Your task to perform on an android device: turn notification dots off Image 0: 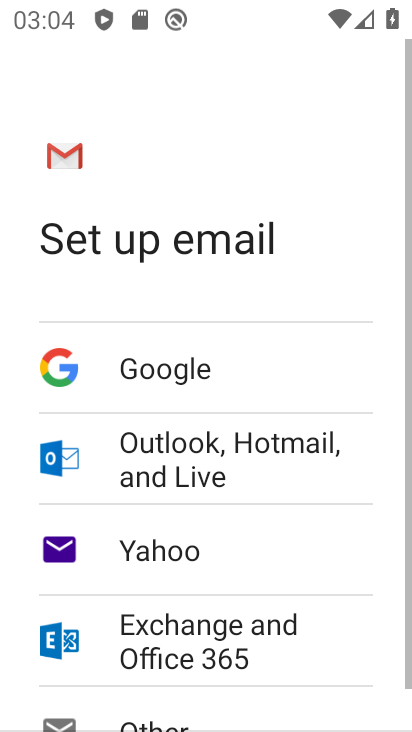
Step 0: press back button
Your task to perform on an android device: turn notification dots off Image 1: 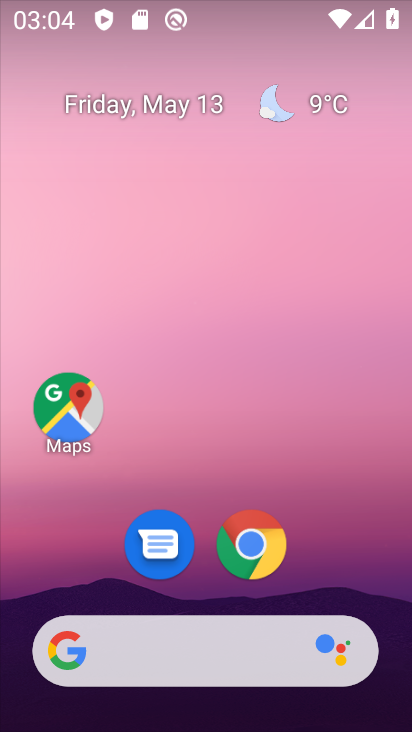
Step 1: drag from (309, 497) to (242, 28)
Your task to perform on an android device: turn notification dots off Image 2: 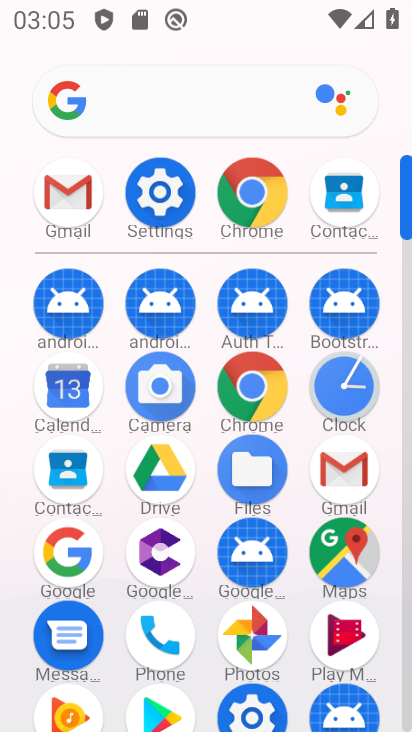
Step 2: click (157, 187)
Your task to perform on an android device: turn notification dots off Image 3: 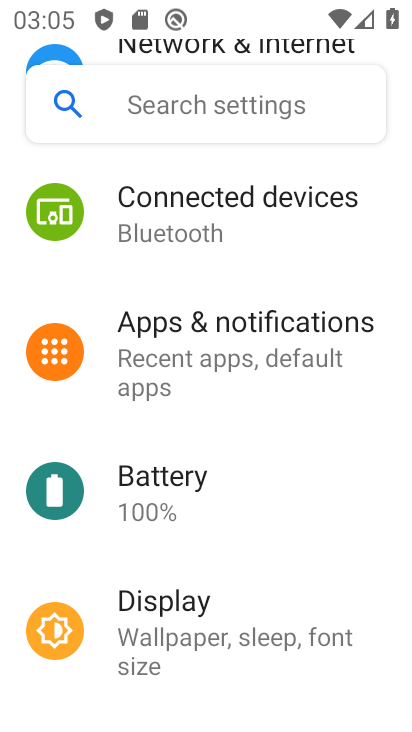
Step 3: drag from (268, 497) to (260, 153)
Your task to perform on an android device: turn notification dots off Image 4: 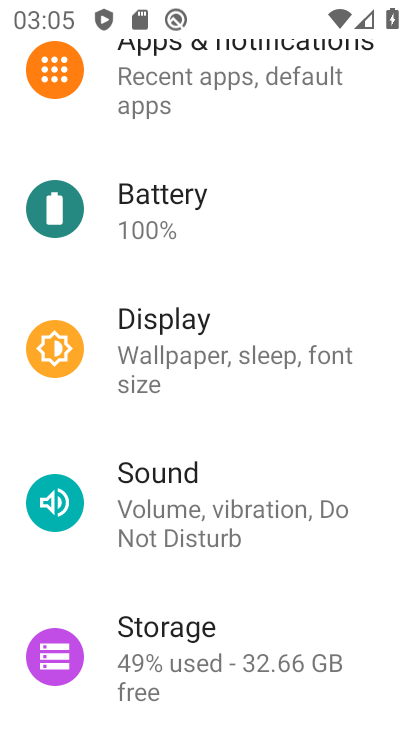
Step 4: drag from (231, 481) to (236, 192)
Your task to perform on an android device: turn notification dots off Image 5: 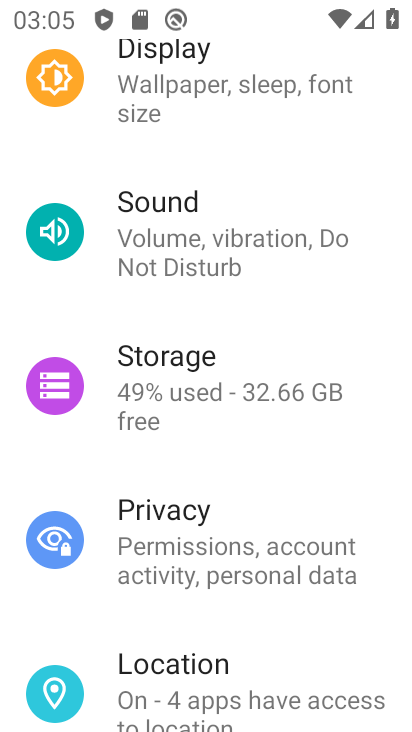
Step 5: drag from (177, 612) to (228, 122)
Your task to perform on an android device: turn notification dots off Image 6: 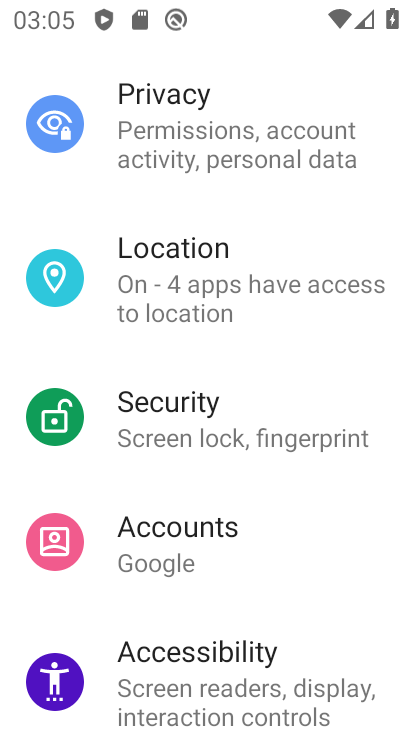
Step 6: drag from (233, 143) to (239, 625)
Your task to perform on an android device: turn notification dots off Image 7: 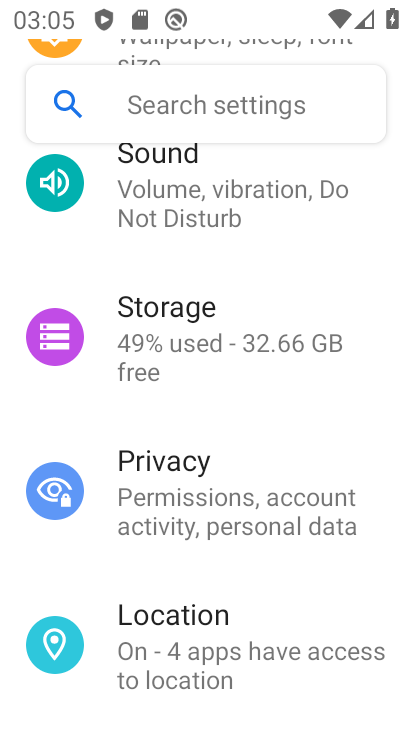
Step 7: drag from (277, 234) to (267, 613)
Your task to perform on an android device: turn notification dots off Image 8: 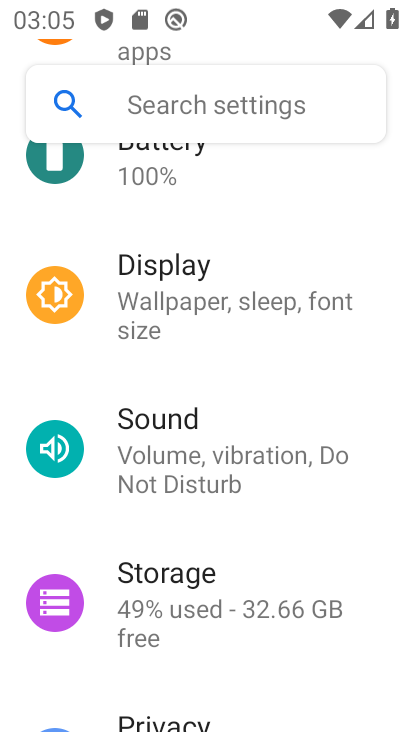
Step 8: drag from (259, 281) to (257, 591)
Your task to perform on an android device: turn notification dots off Image 9: 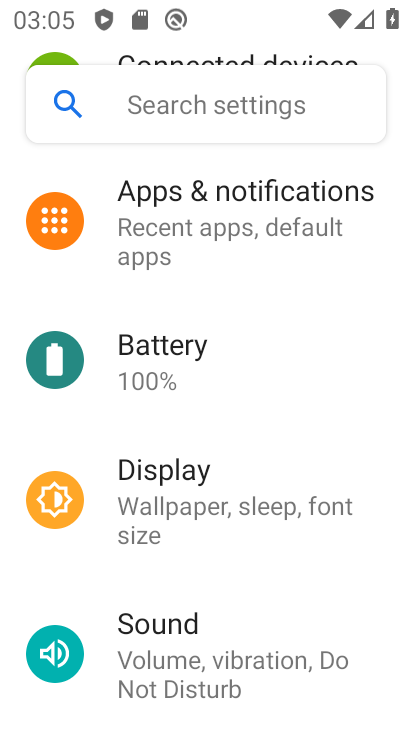
Step 9: click (268, 223)
Your task to perform on an android device: turn notification dots off Image 10: 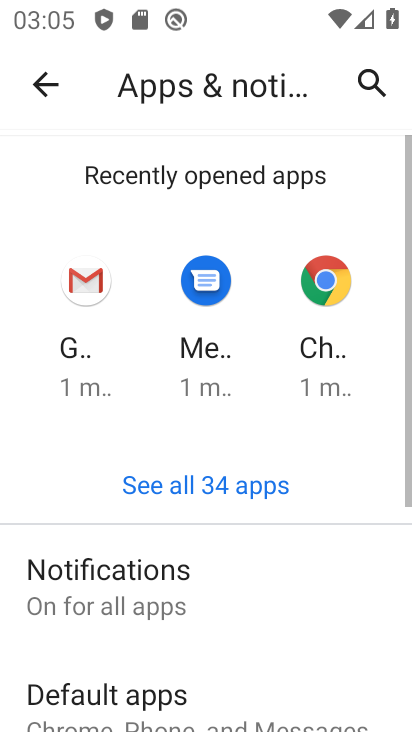
Step 10: drag from (254, 566) to (259, 171)
Your task to perform on an android device: turn notification dots off Image 11: 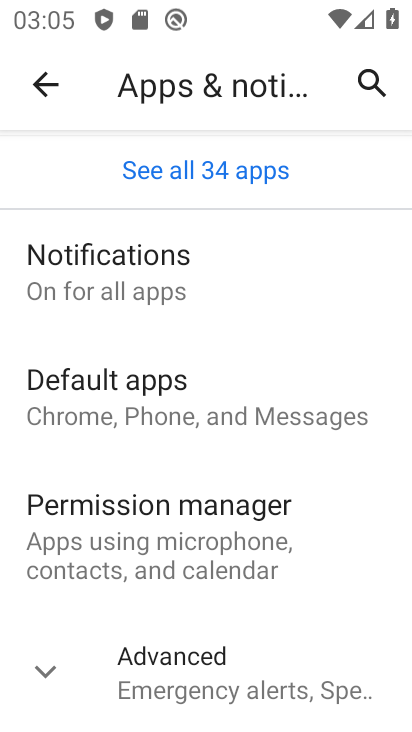
Step 11: drag from (240, 551) to (245, 194)
Your task to perform on an android device: turn notification dots off Image 12: 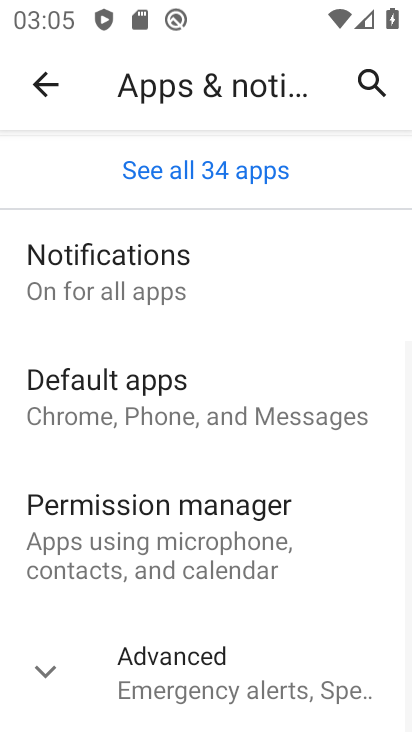
Step 12: drag from (254, 568) to (248, 193)
Your task to perform on an android device: turn notification dots off Image 13: 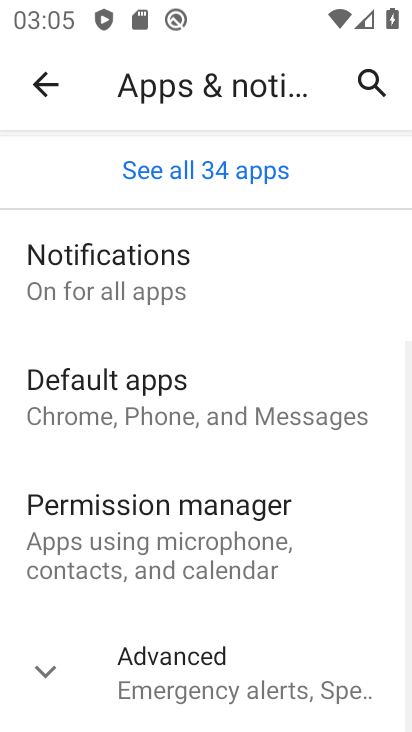
Step 13: click (205, 657)
Your task to perform on an android device: turn notification dots off Image 14: 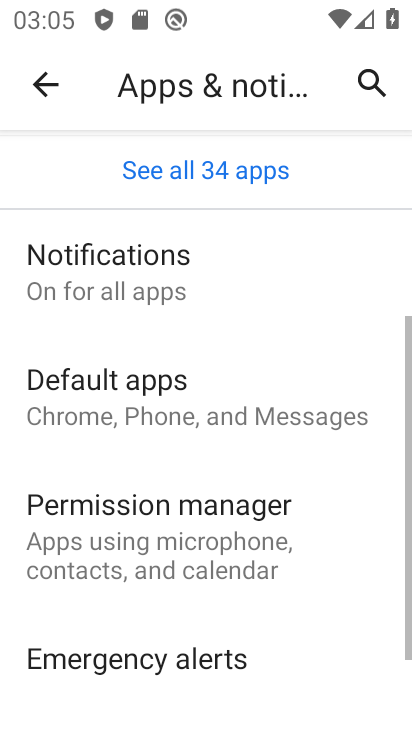
Step 14: drag from (262, 619) to (260, 182)
Your task to perform on an android device: turn notification dots off Image 15: 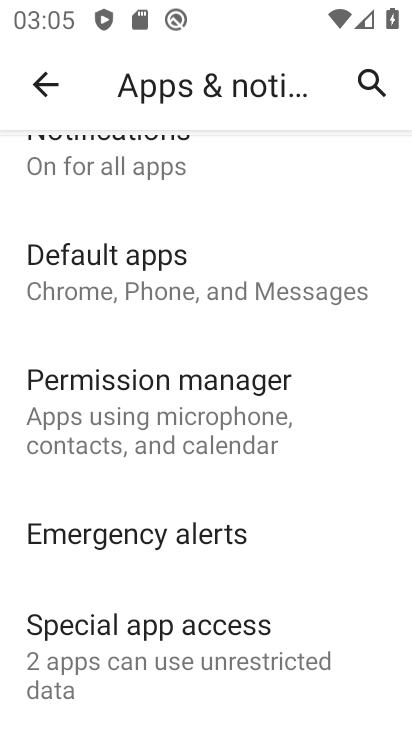
Step 15: click (181, 639)
Your task to perform on an android device: turn notification dots off Image 16: 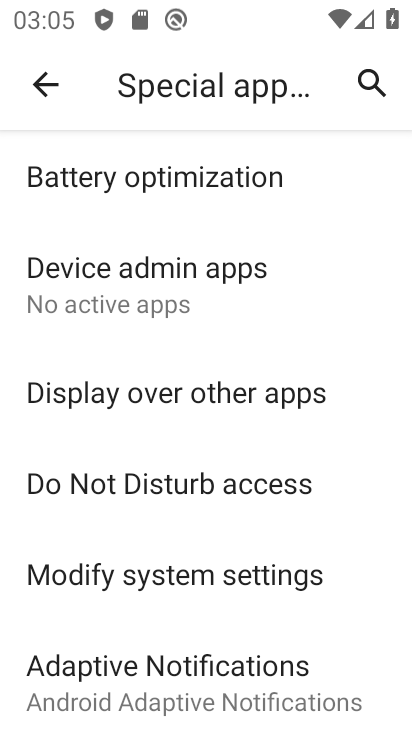
Step 16: drag from (193, 575) to (223, 92)
Your task to perform on an android device: turn notification dots off Image 17: 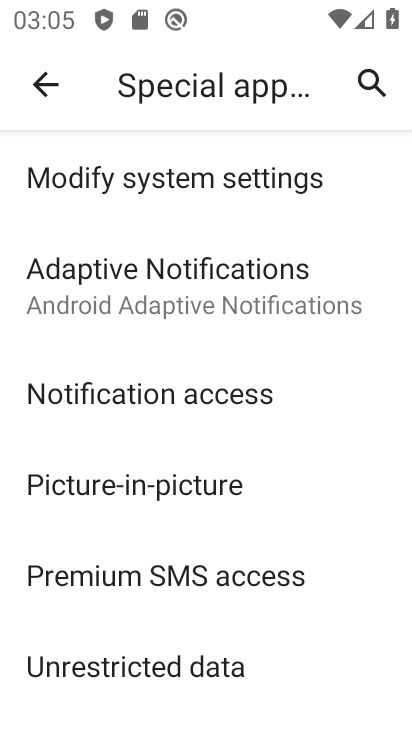
Step 17: drag from (212, 572) to (237, 146)
Your task to perform on an android device: turn notification dots off Image 18: 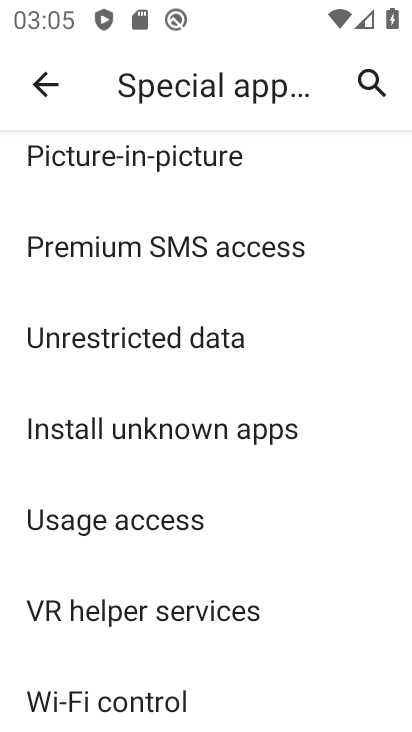
Step 18: drag from (216, 524) to (226, 109)
Your task to perform on an android device: turn notification dots off Image 19: 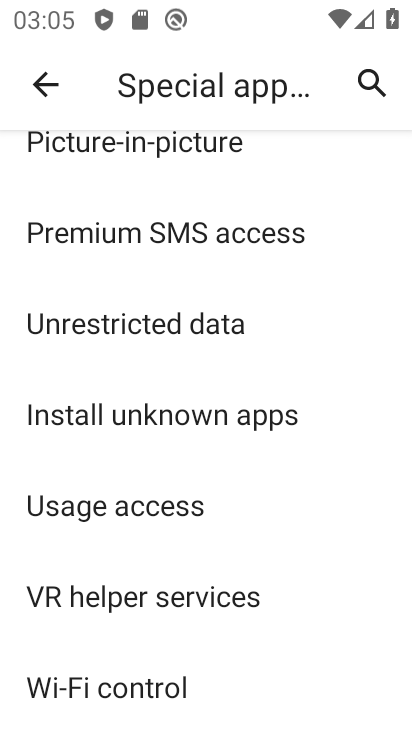
Step 19: click (28, 73)
Your task to perform on an android device: turn notification dots off Image 20: 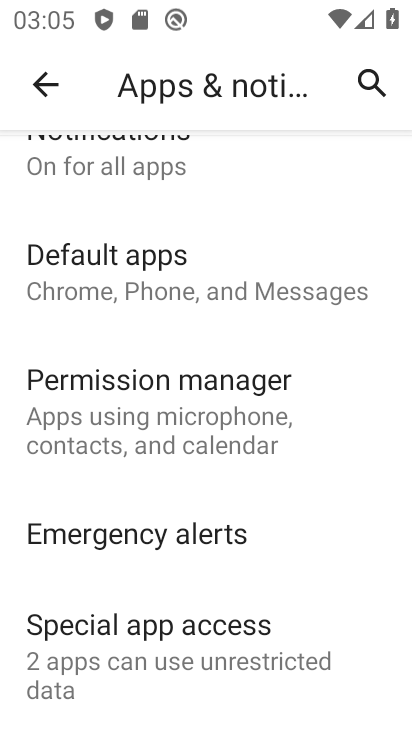
Step 20: drag from (234, 225) to (256, 530)
Your task to perform on an android device: turn notification dots off Image 21: 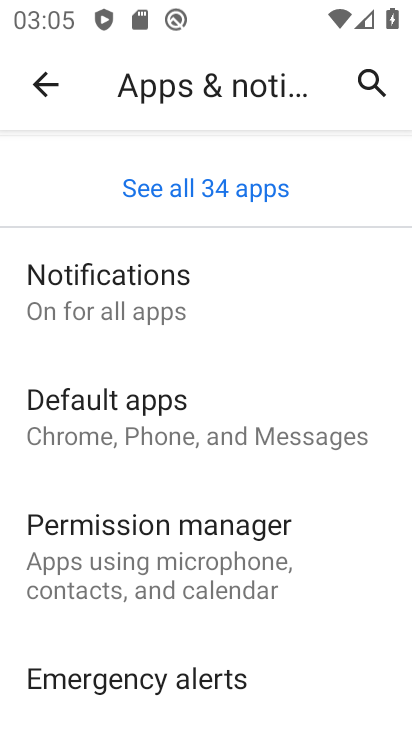
Step 21: click (130, 292)
Your task to perform on an android device: turn notification dots off Image 22: 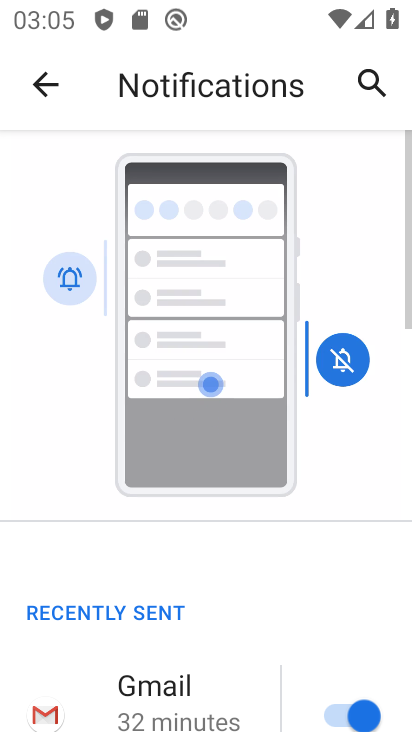
Step 22: drag from (221, 621) to (262, 205)
Your task to perform on an android device: turn notification dots off Image 23: 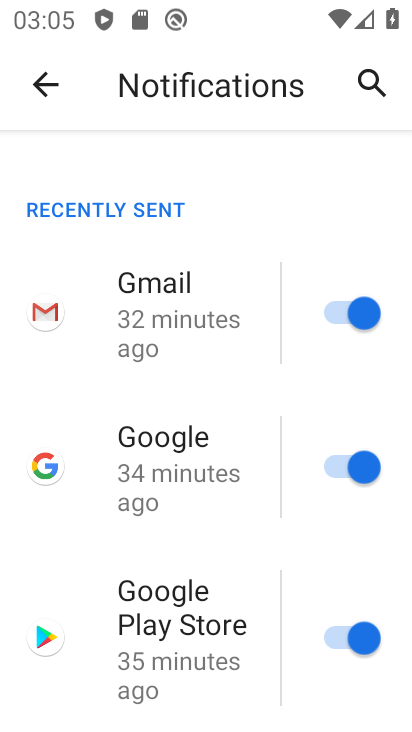
Step 23: drag from (220, 572) to (230, 144)
Your task to perform on an android device: turn notification dots off Image 24: 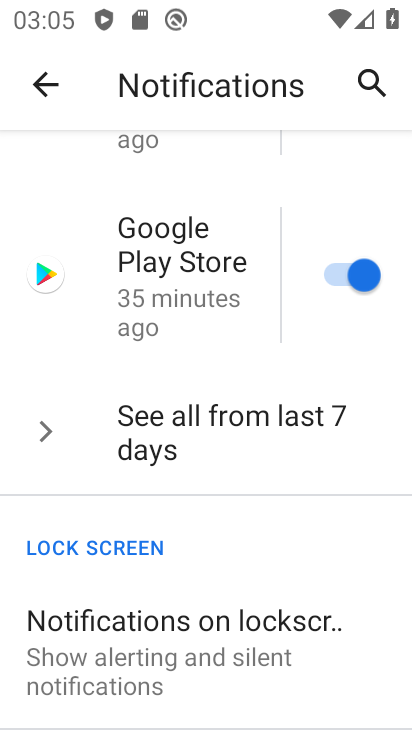
Step 24: drag from (181, 513) to (201, 171)
Your task to perform on an android device: turn notification dots off Image 25: 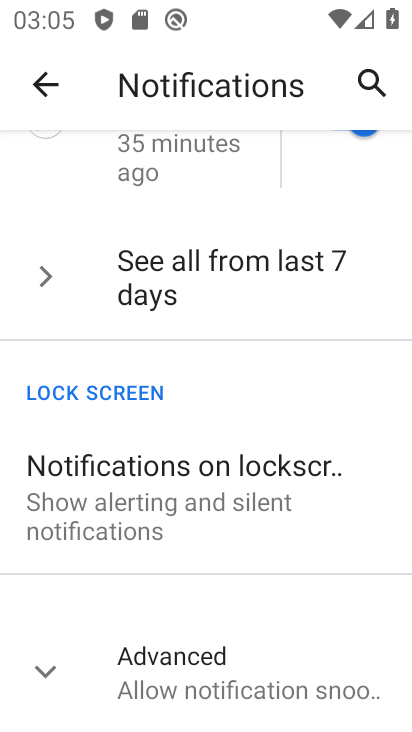
Step 25: click (178, 671)
Your task to perform on an android device: turn notification dots off Image 26: 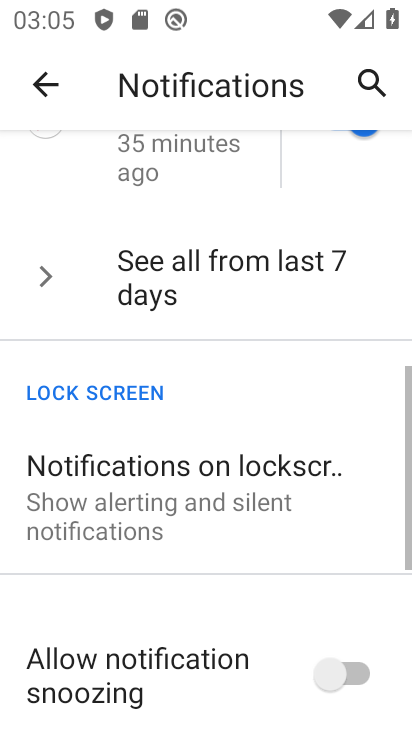
Step 26: task complete